Your task to perform on an android device: change the clock display to analog Image 0: 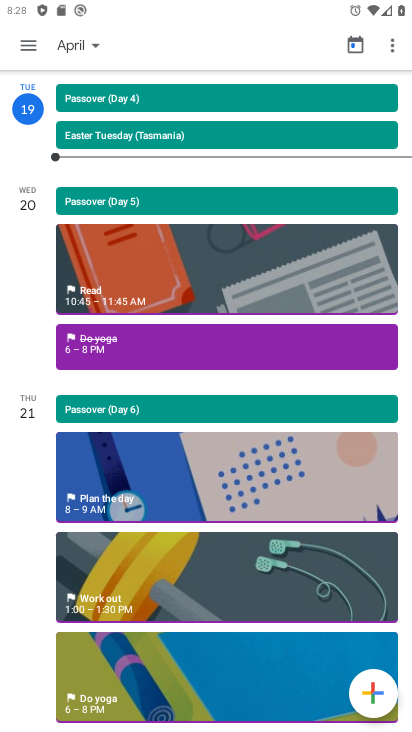
Step 0: press home button
Your task to perform on an android device: change the clock display to analog Image 1: 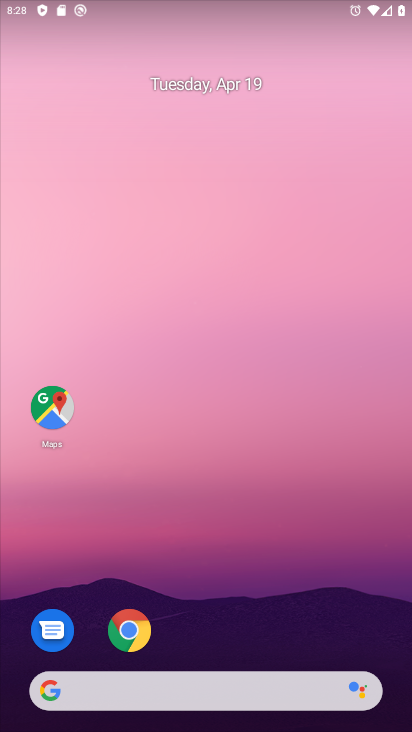
Step 1: drag from (224, 657) to (320, 146)
Your task to perform on an android device: change the clock display to analog Image 2: 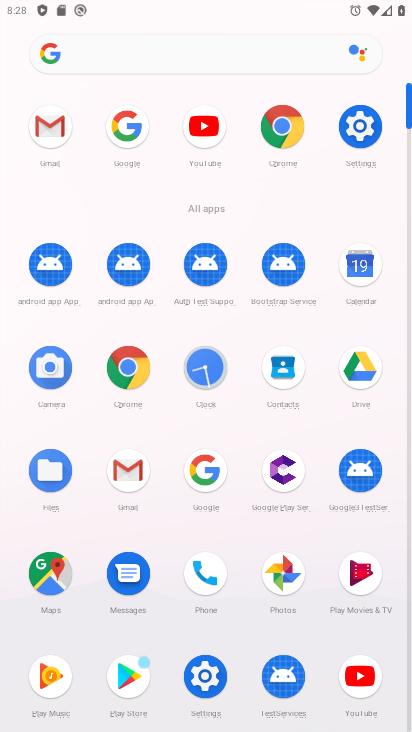
Step 2: click (218, 364)
Your task to perform on an android device: change the clock display to analog Image 3: 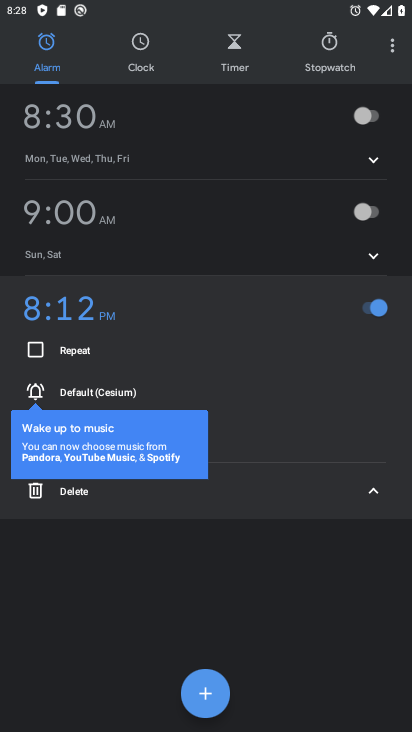
Step 3: click (394, 52)
Your task to perform on an android device: change the clock display to analog Image 4: 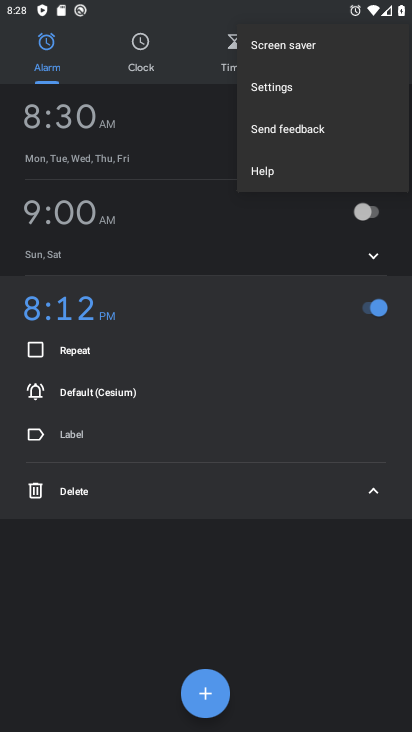
Step 4: click (304, 92)
Your task to perform on an android device: change the clock display to analog Image 5: 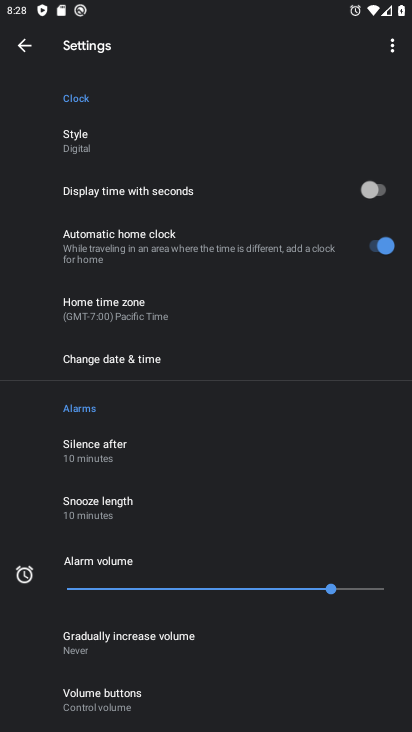
Step 5: click (270, 138)
Your task to perform on an android device: change the clock display to analog Image 6: 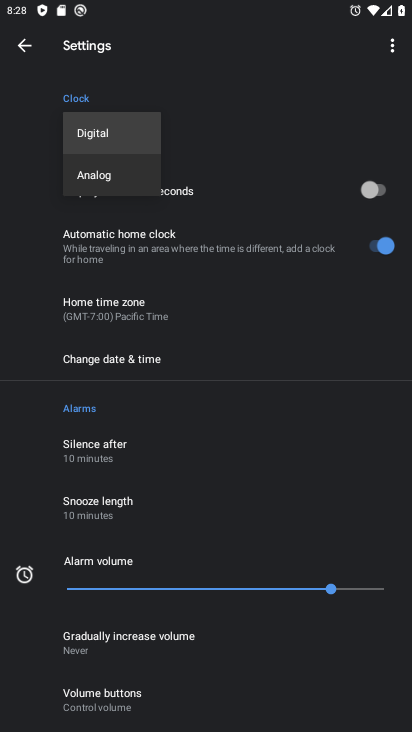
Step 6: click (116, 182)
Your task to perform on an android device: change the clock display to analog Image 7: 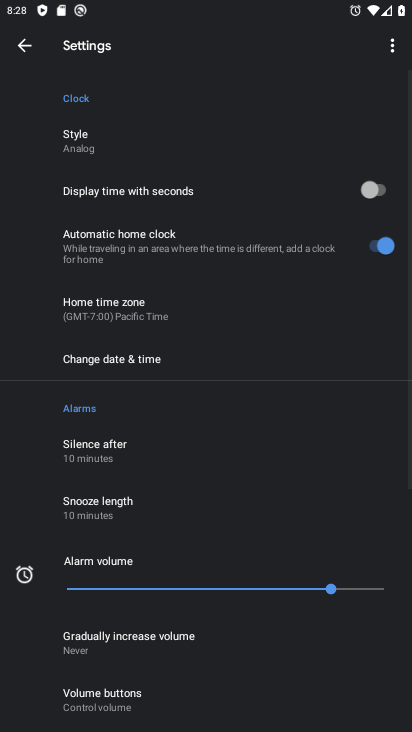
Step 7: task complete